Your task to perform on an android device: Open the phone app and click the voicemail tab. Image 0: 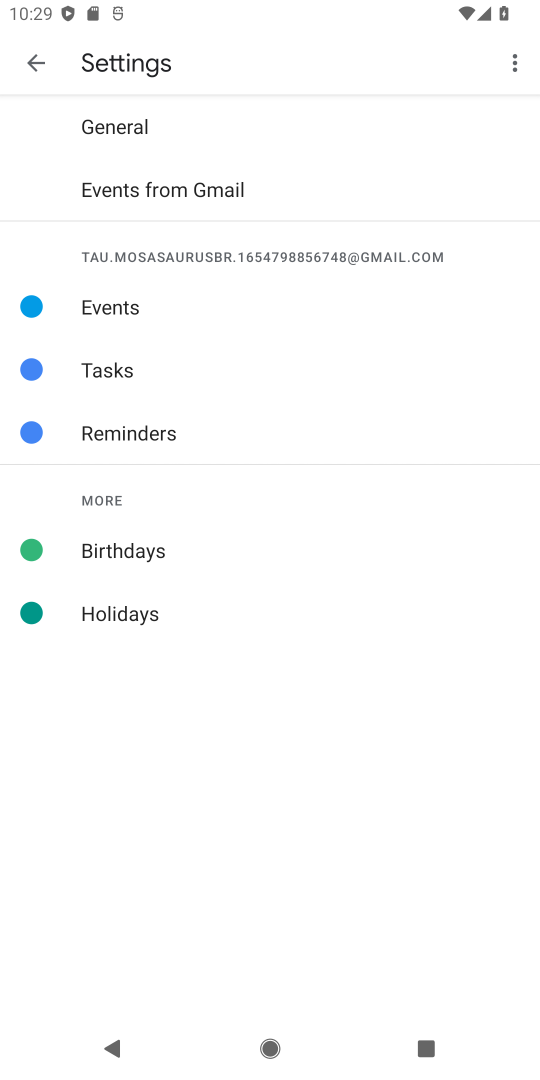
Step 0: press home button
Your task to perform on an android device: Open the phone app and click the voicemail tab. Image 1: 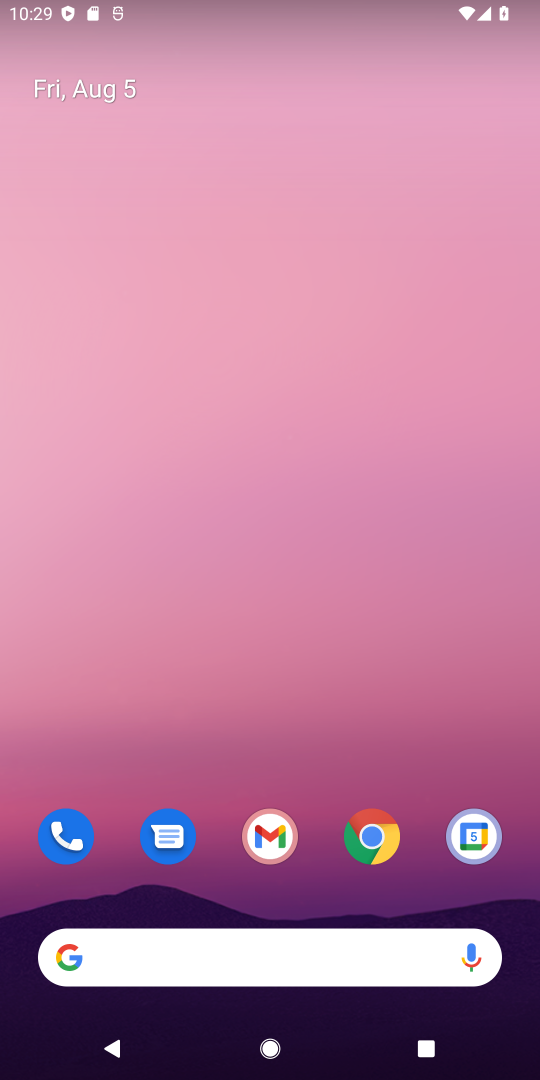
Step 1: drag from (311, 765) to (376, 211)
Your task to perform on an android device: Open the phone app and click the voicemail tab. Image 2: 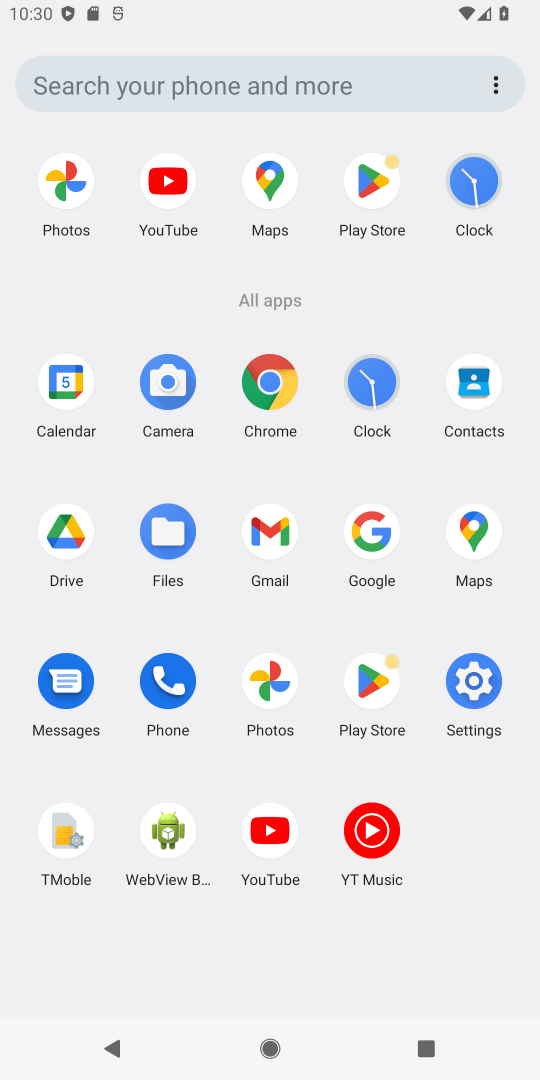
Step 2: click (173, 680)
Your task to perform on an android device: Open the phone app and click the voicemail tab. Image 3: 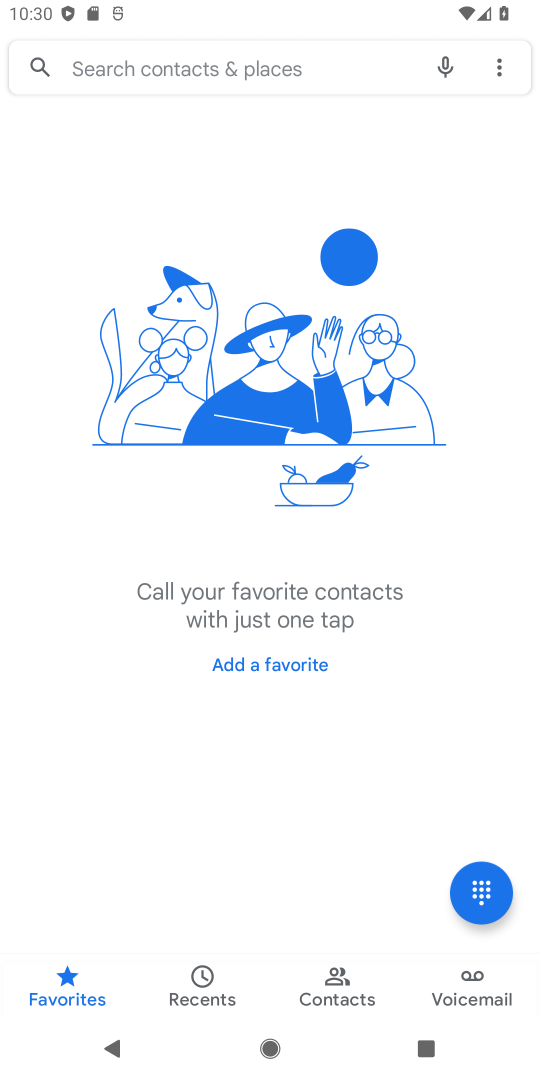
Step 3: click (467, 970)
Your task to perform on an android device: Open the phone app and click the voicemail tab. Image 4: 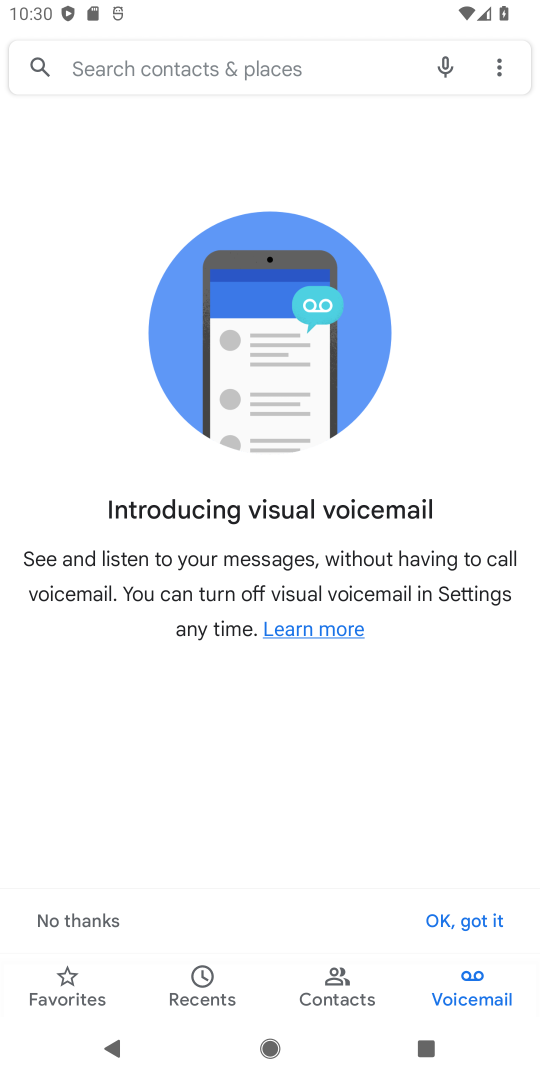
Step 4: task complete